Your task to perform on an android device: turn on improve location accuracy Image 0: 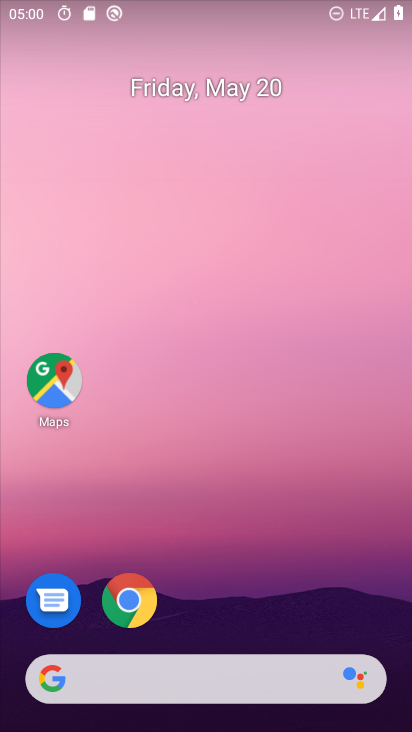
Step 0: drag from (239, 623) to (309, 66)
Your task to perform on an android device: turn on improve location accuracy Image 1: 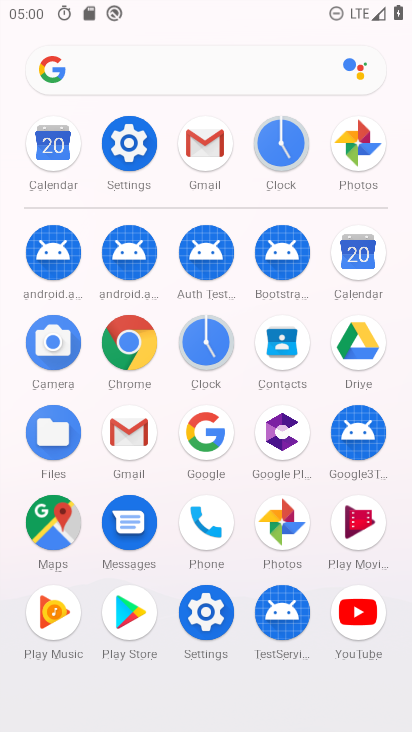
Step 1: click (121, 139)
Your task to perform on an android device: turn on improve location accuracy Image 2: 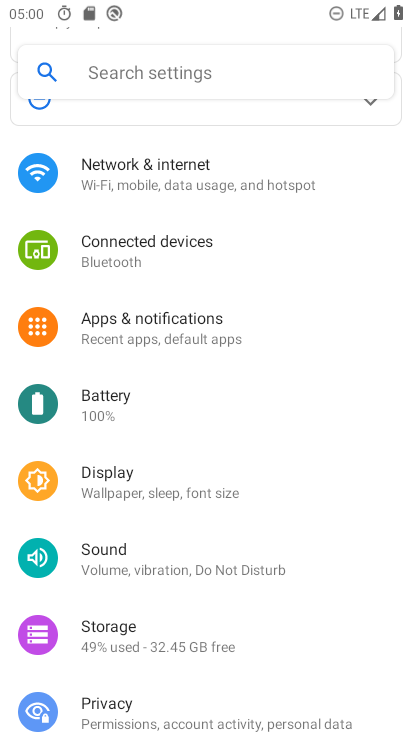
Step 2: drag from (150, 673) to (216, 375)
Your task to perform on an android device: turn on improve location accuracy Image 3: 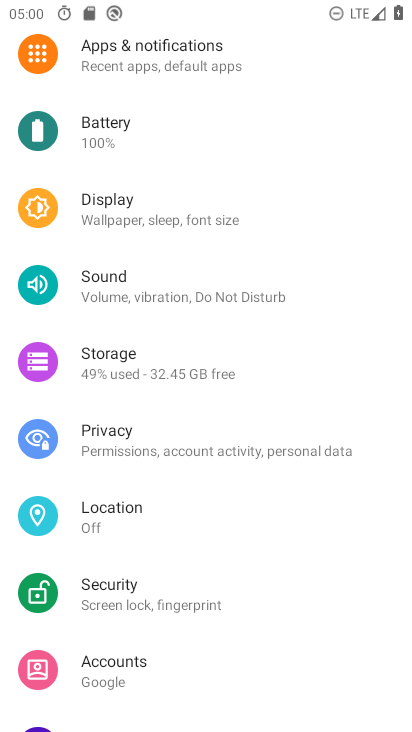
Step 3: click (121, 526)
Your task to perform on an android device: turn on improve location accuracy Image 4: 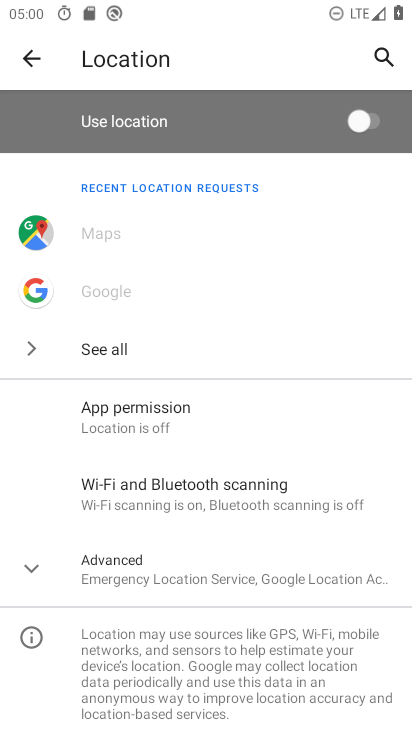
Step 4: click (164, 575)
Your task to perform on an android device: turn on improve location accuracy Image 5: 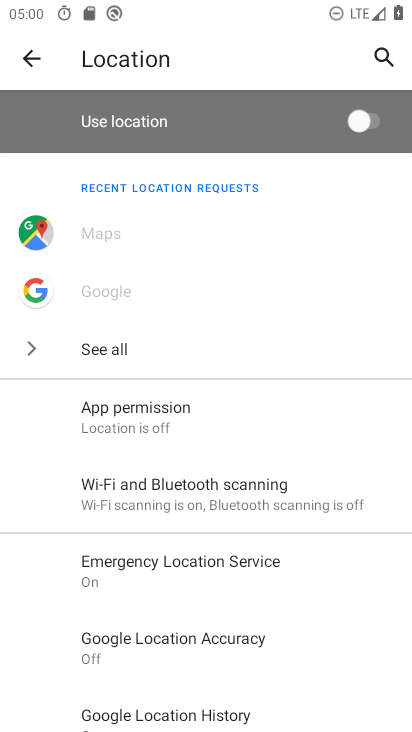
Step 5: click (159, 646)
Your task to perform on an android device: turn on improve location accuracy Image 6: 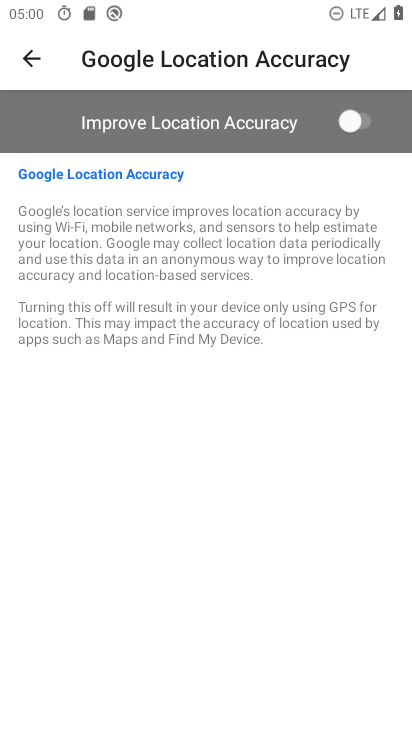
Step 6: click (349, 128)
Your task to perform on an android device: turn on improve location accuracy Image 7: 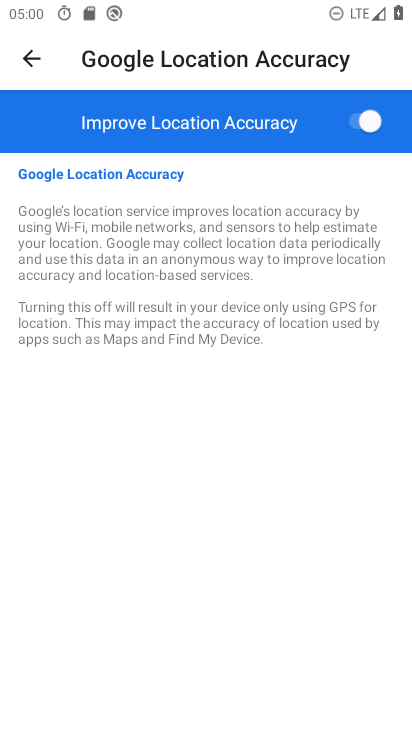
Step 7: task complete